Your task to perform on an android device: move a message to another label in the gmail app Image 0: 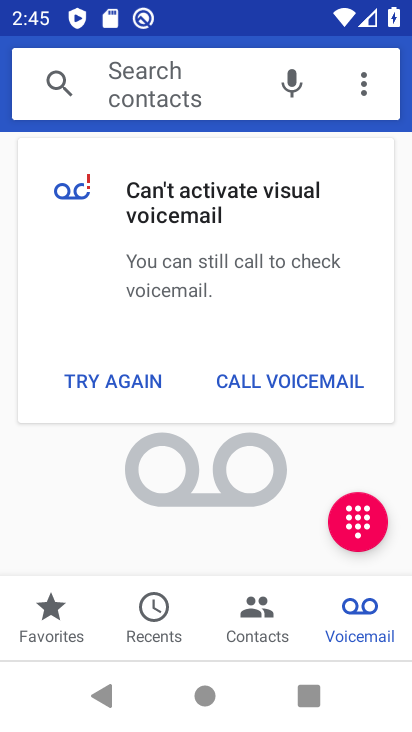
Step 0: press back button
Your task to perform on an android device: move a message to another label in the gmail app Image 1: 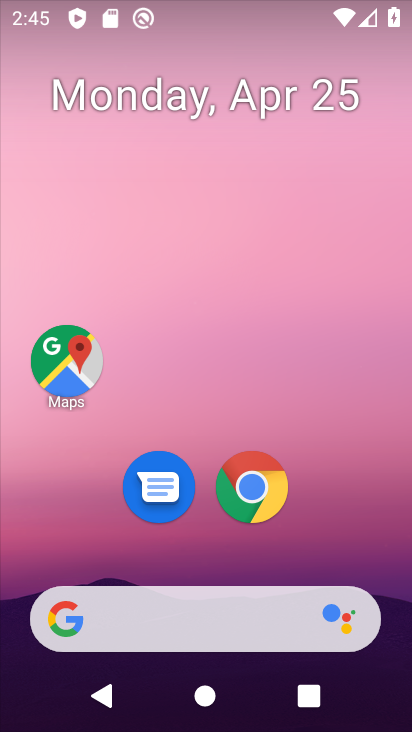
Step 1: drag from (148, 561) to (267, 9)
Your task to perform on an android device: move a message to another label in the gmail app Image 2: 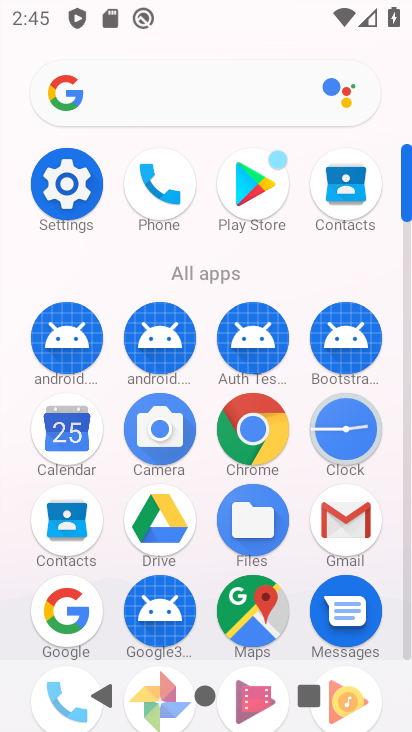
Step 2: click (348, 524)
Your task to perform on an android device: move a message to another label in the gmail app Image 3: 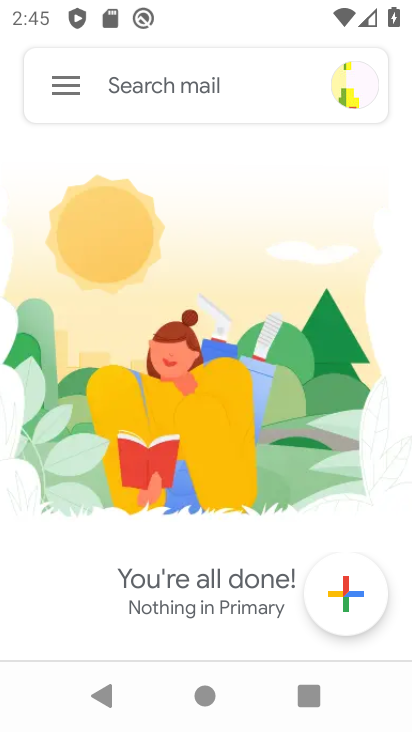
Step 3: click (63, 79)
Your task to perform on an android device: move a message to another label in the gmail app Image 4: 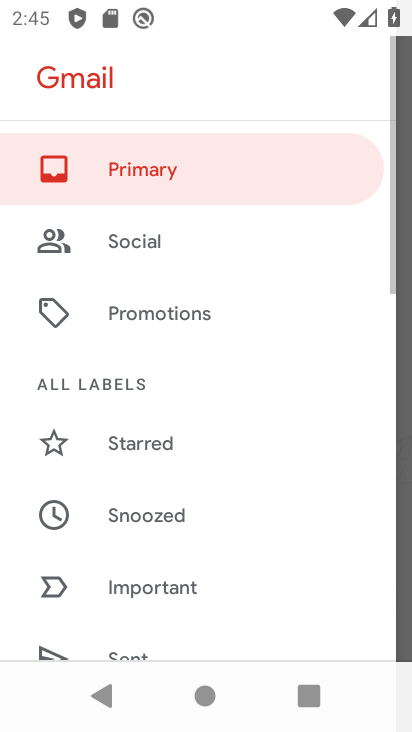
Step 4: drag from (137, 615) to (214, 236)
Your task to perform on an android device: move a message to another label in the gmail app Image 5: 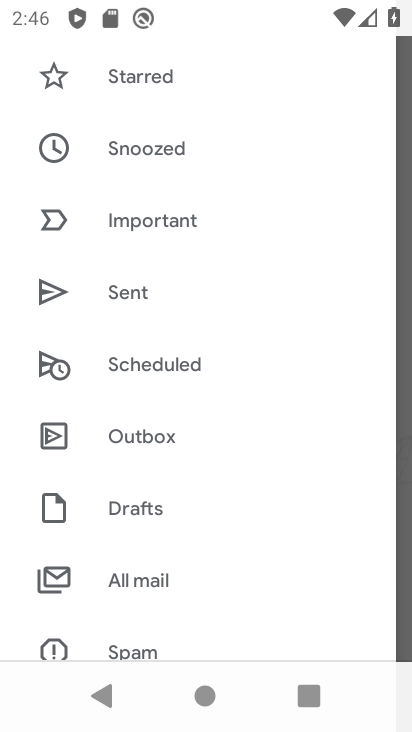
Step 5: click (141, 581)
Your task to perform on an android device: move a message to another label in the gmail app Image 6: 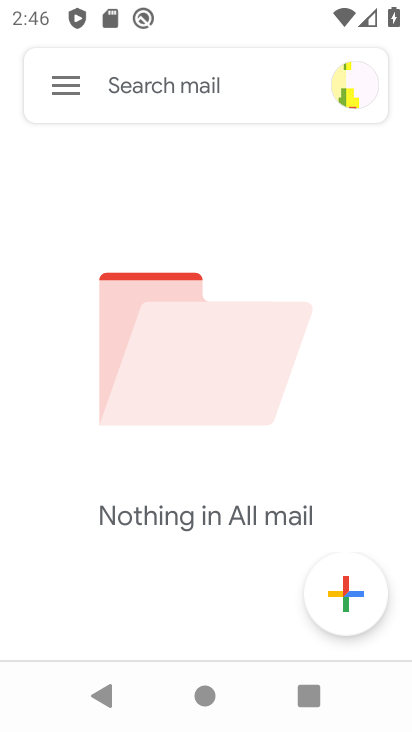
Step 6: click (71, 99)
Your task to perform on an android device: move a message to another label in the gmail app Image 7: 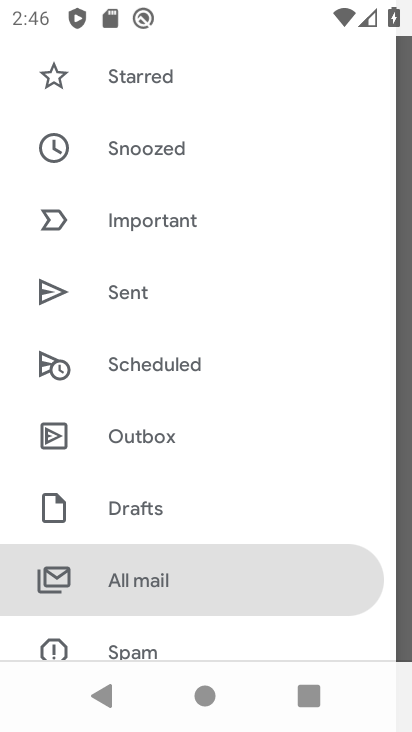
Step 7: click (214, 572)
Your task to perform on an android device: move a message to another label in the gmail app Image 8: 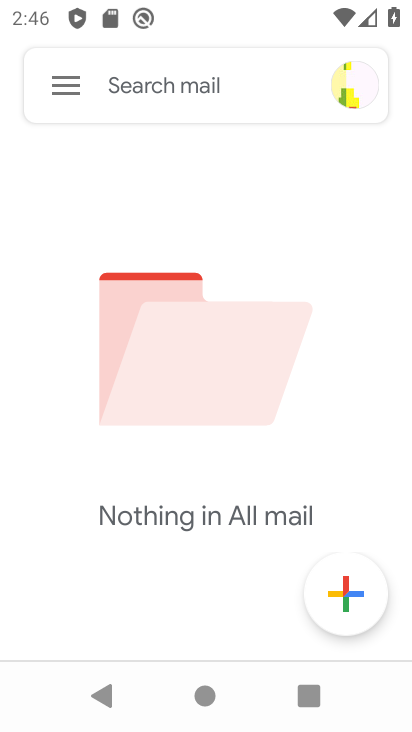
Step 8: task complete